Your task to perform on an android device: Open eBay Image 0: 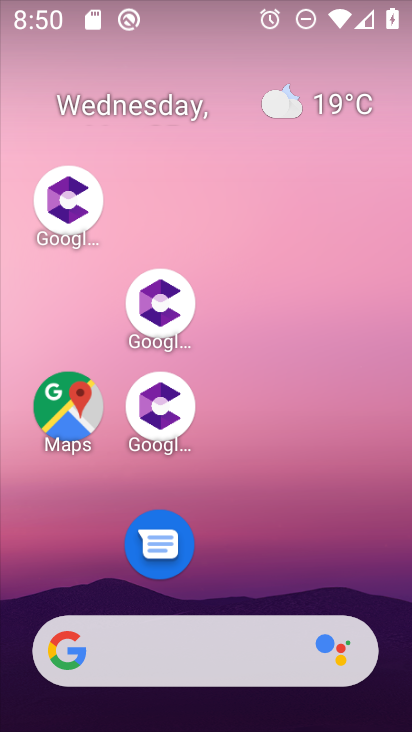
Step 0: drag from (250, 561) to (204, 146)
Your task to perform on an android device: Open eBay Image 1: 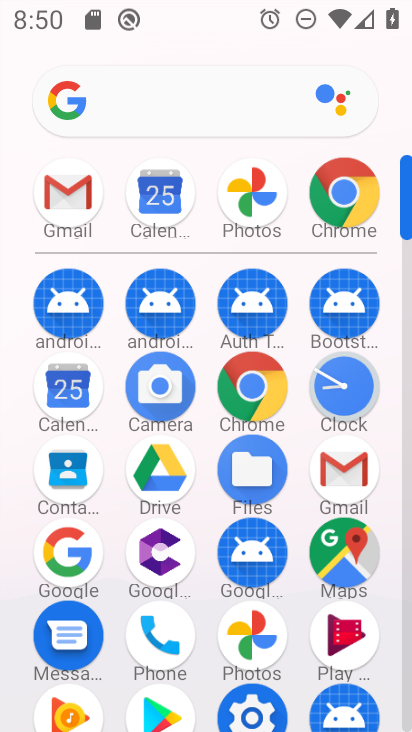
Step 1: click (332, 200)
Your task to perform on an android device: Open eBay Image 2: 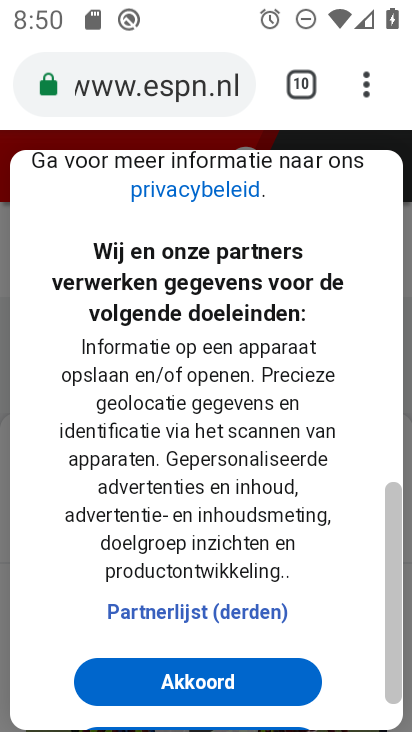
Step 2: click (361, 84)
Your task to perform on an android device: Open eBay Image 3: 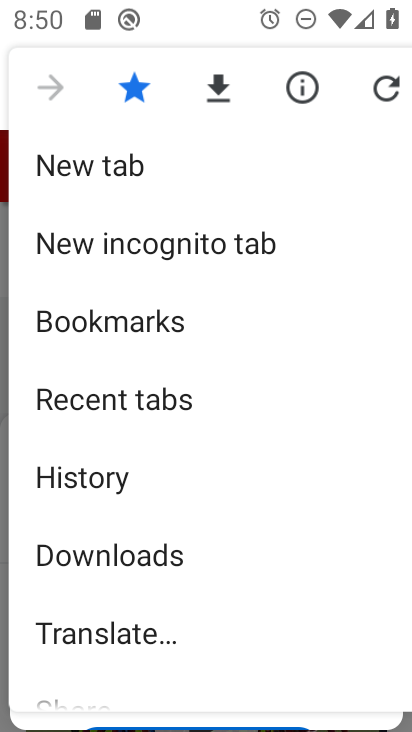
Step 3: click (121, 163)
Your task to perform on an android device: Open eBay Image 4: 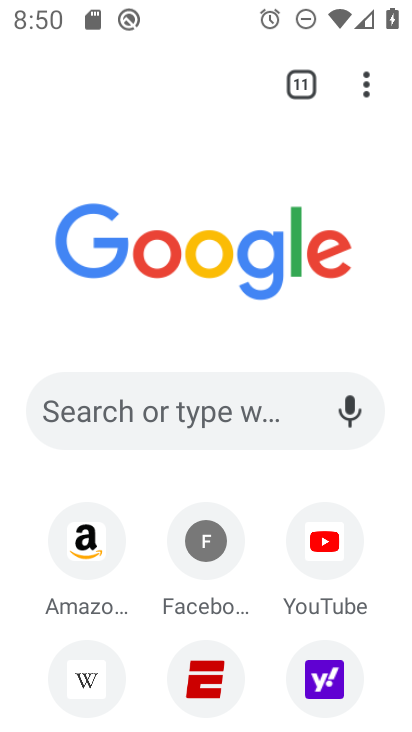
Step 4: click (196, 403)
Your task to perform on an android device: Open eBay Image 5: 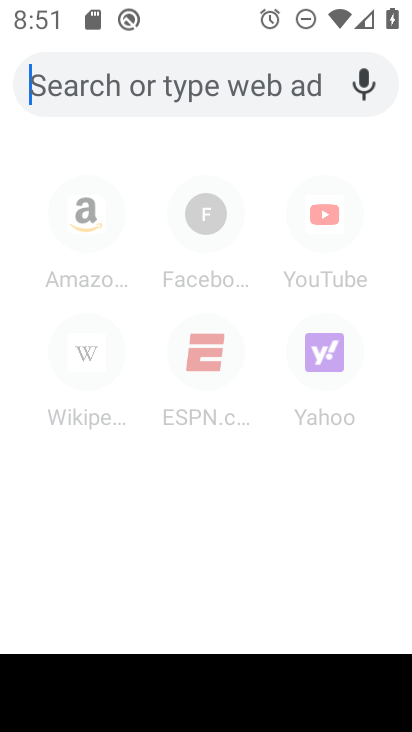
Step 5: type "ebay"
Your task to perform on an android device: Open eBay Image 6: 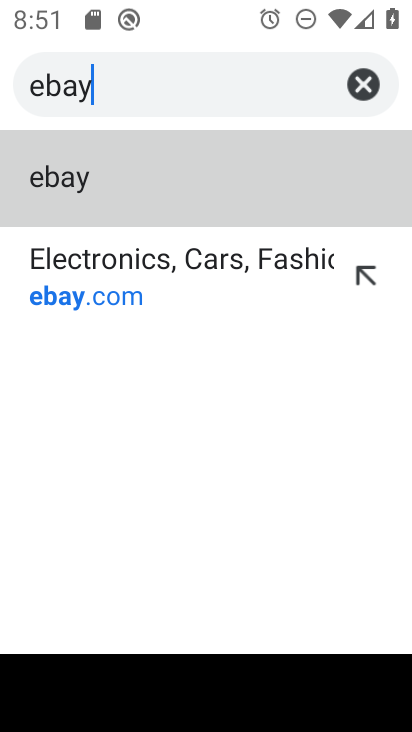
Step 6: click (40, 170)
Your task to perform on an android device: Open eBay Image 7: 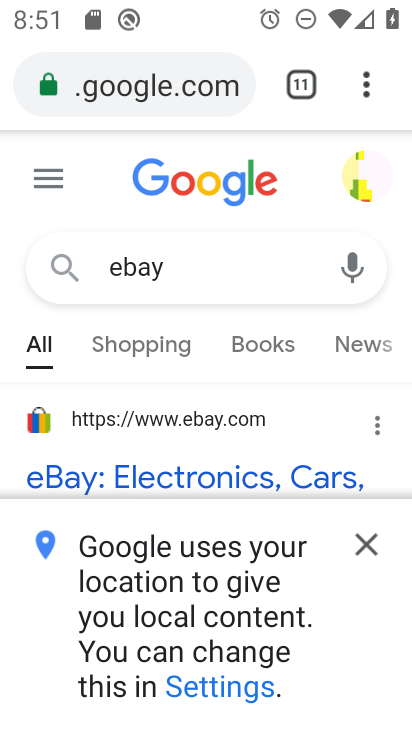
Step 7: task complete